Your task to perform on an android device: turn on bluetooth scan Image 0: 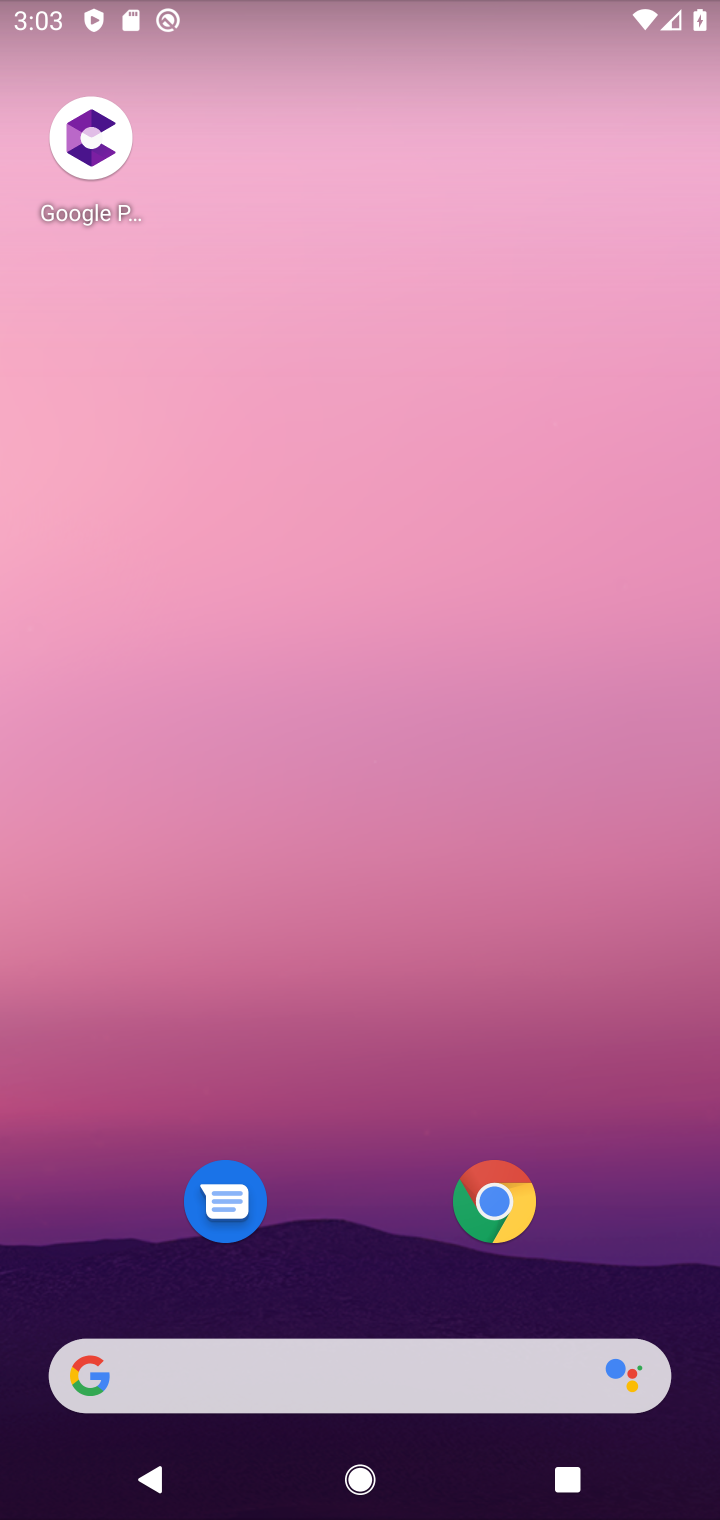
Step 0: drag from (346, 1261) to (161, 154)
Your task to perform on an android device: turn on bluetooth scan Image 1: 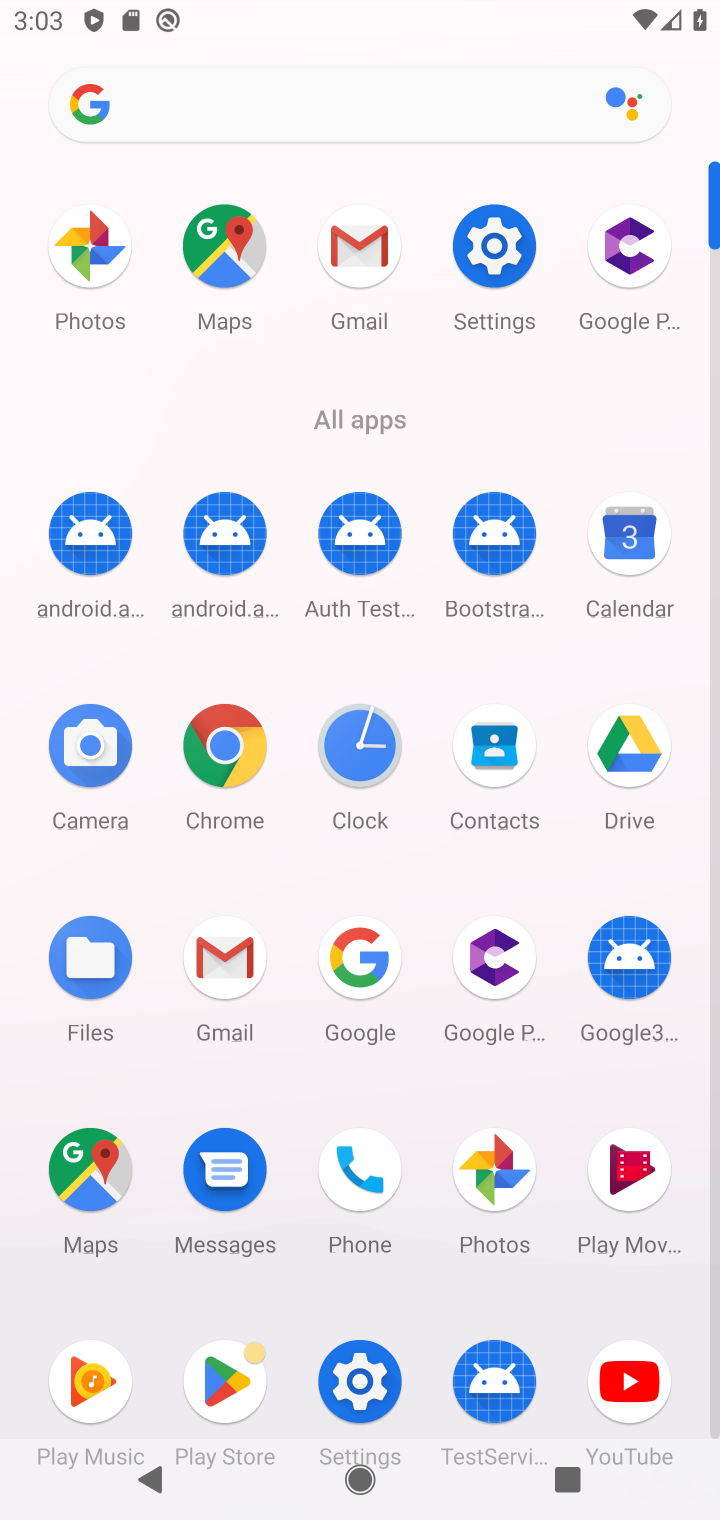
Step 1: click (361, 1390)
Your task to perform on an android device: turn on bluetooth scan Image 2: 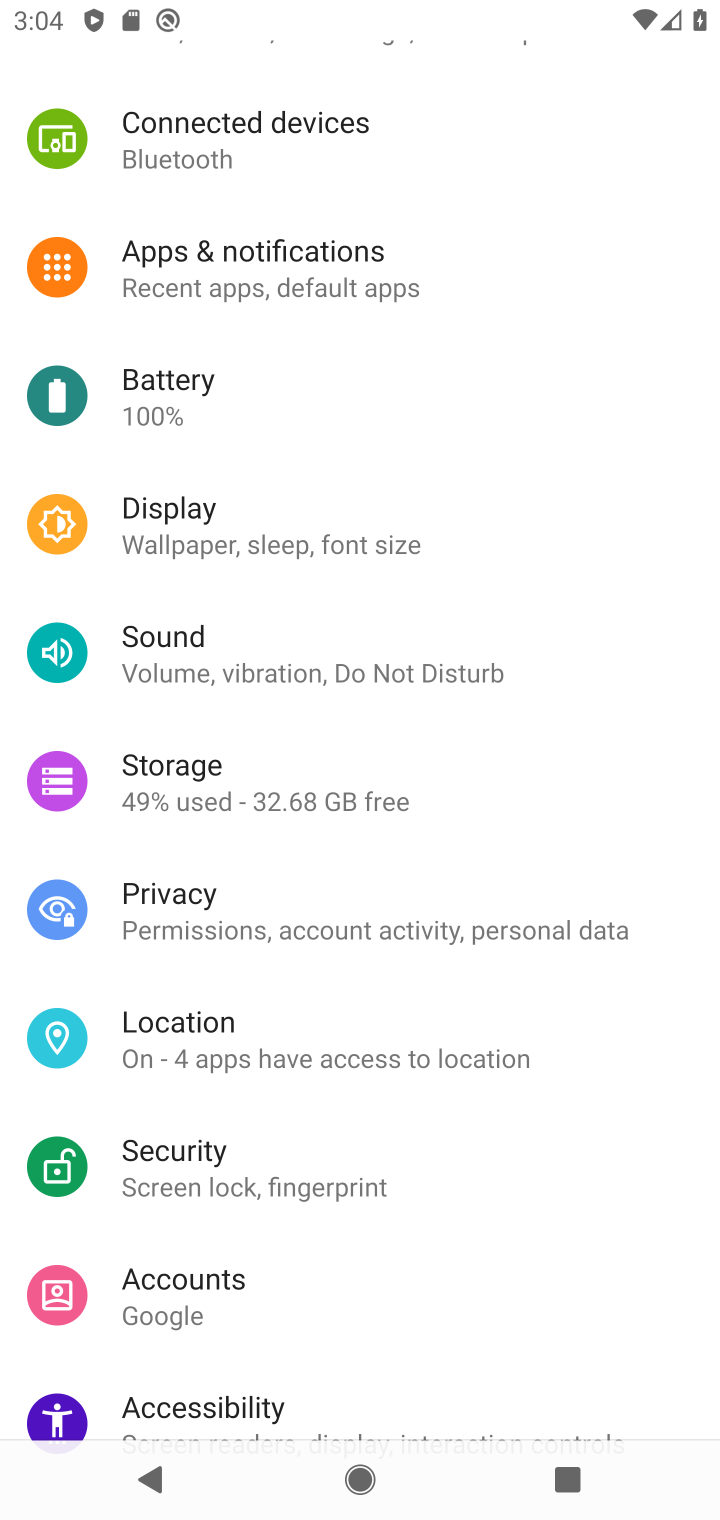
Step 2: click (151, 1036)
Your task to perform on an android device: turn on bluetooth scan Image 3: 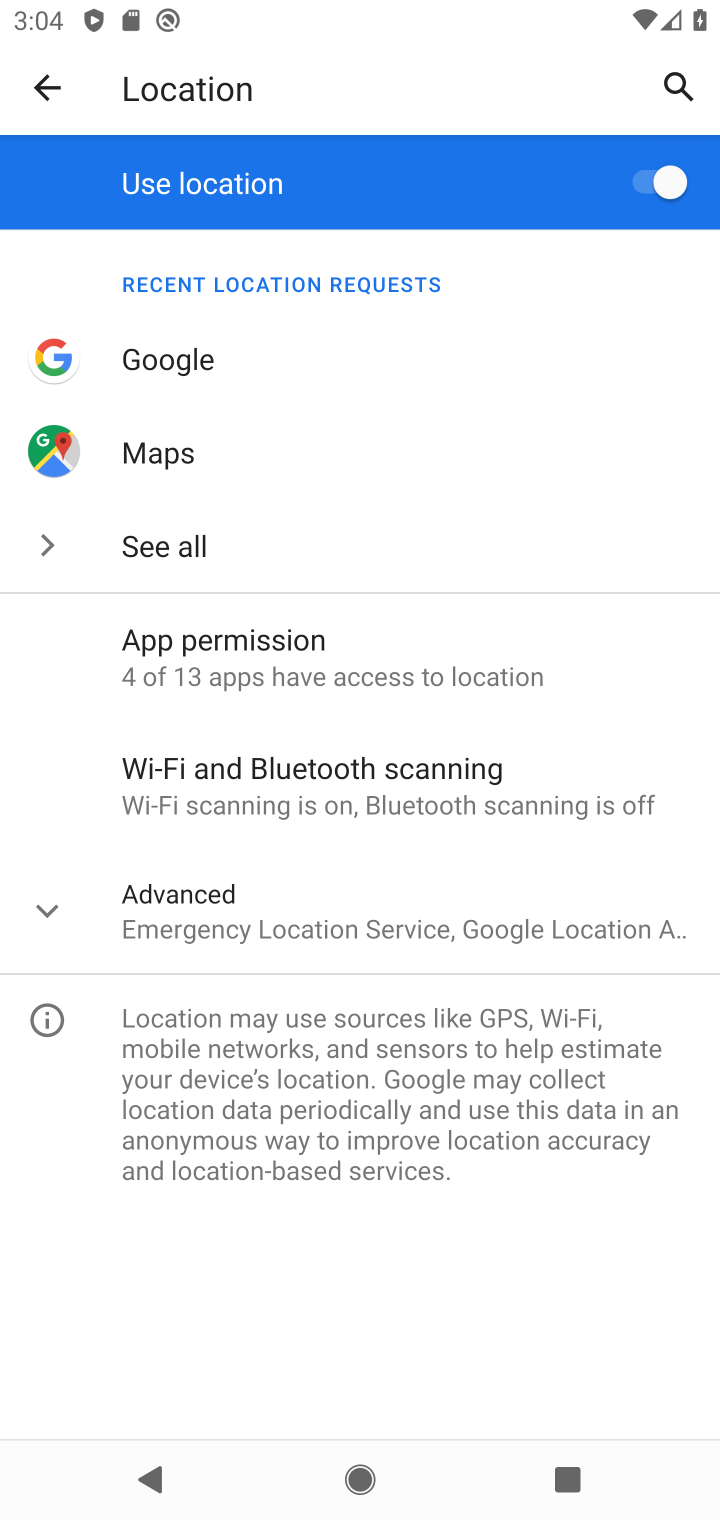
Step 3: click (312, 783)
Your task to perform on an android device: turn on bluetooth scan Image 4: 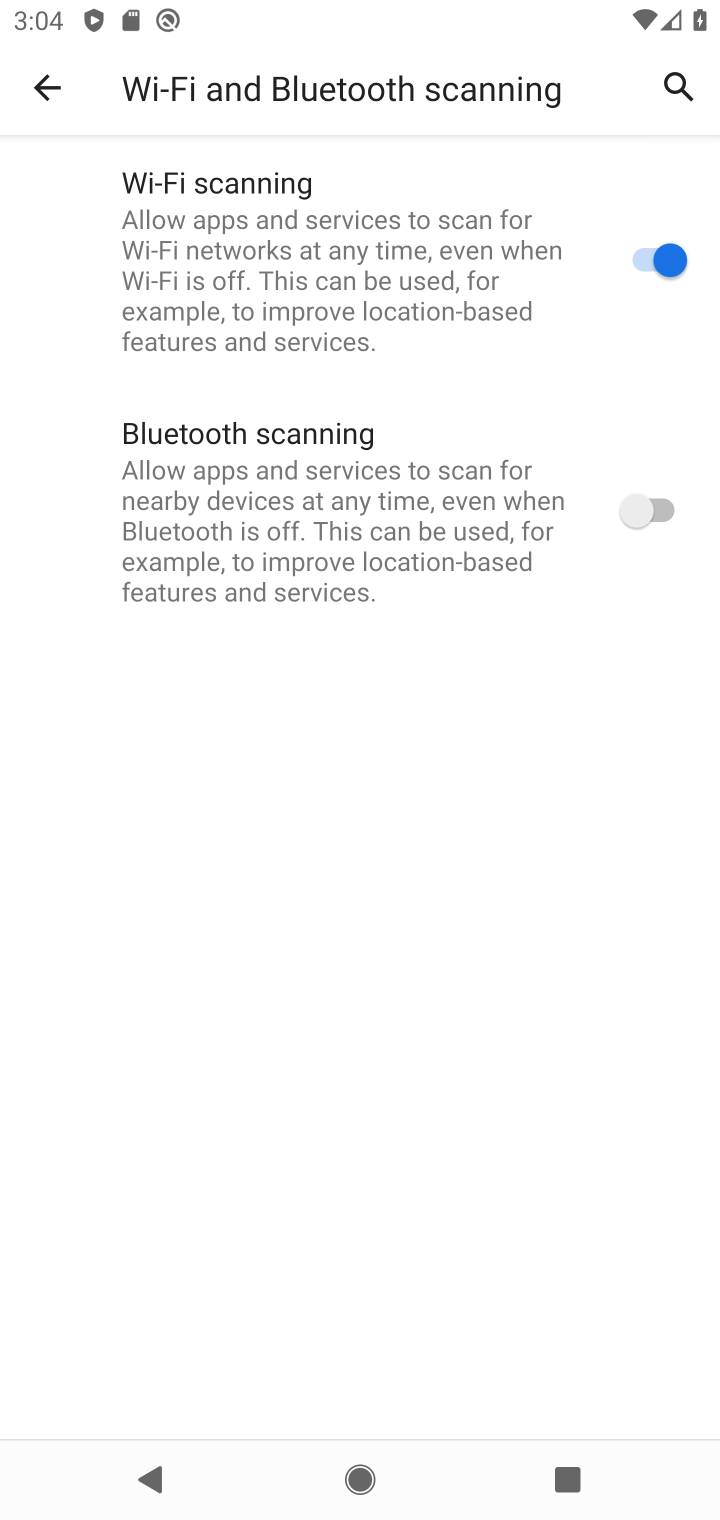
Step 4: click (624, 536)
Your task to perform on an android device: turn on bluetooth scan Image 5: 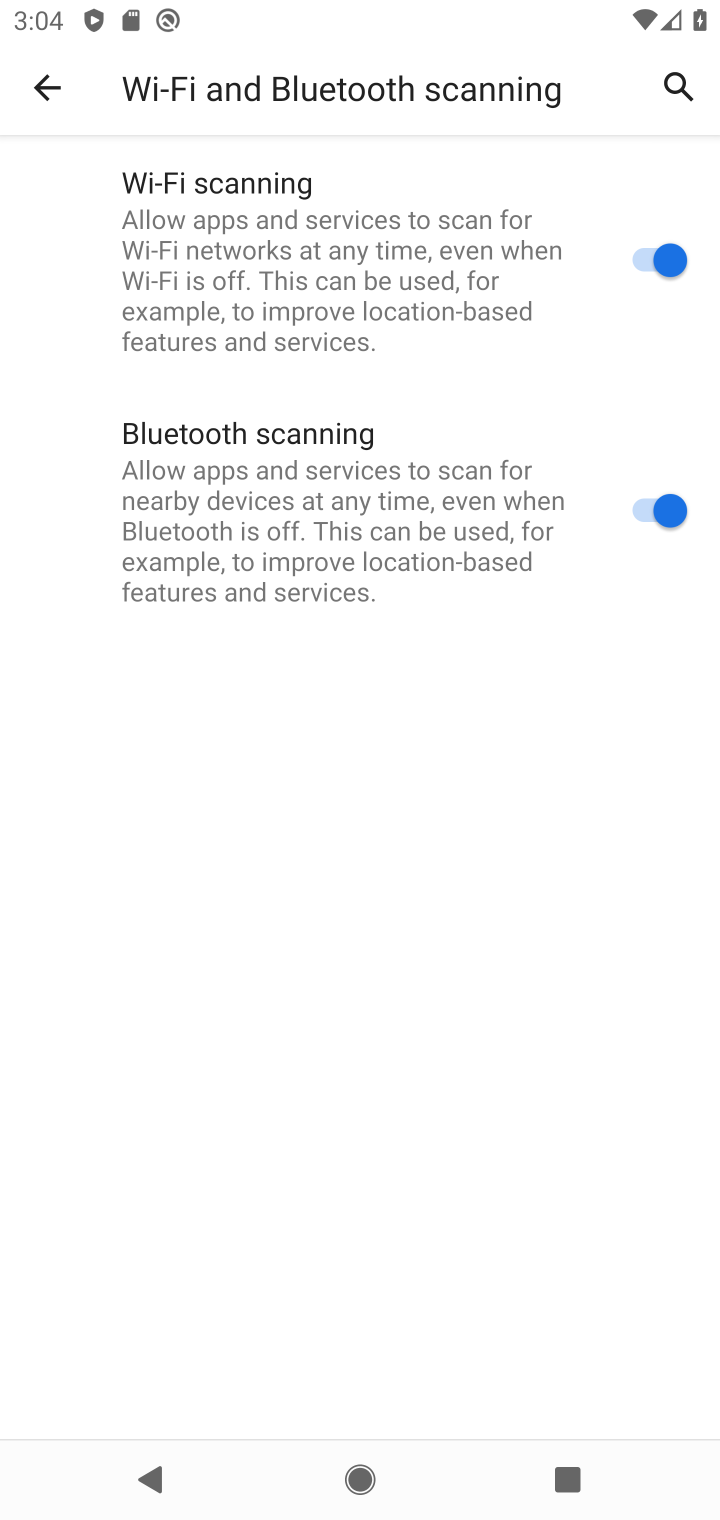
Step 5: task complete